Your task to perform on an android device: delete a single message in the gmail app Image 0: 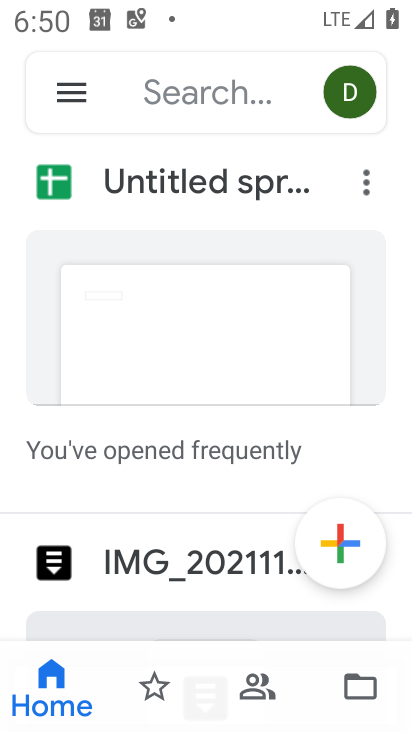
Step 0: press home button
Your task to perform on an android device: delete a single message in the gmail app Image 1: 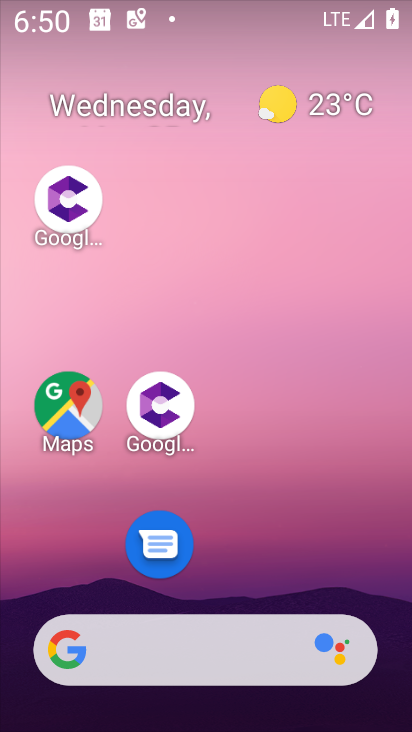
Step 1: drag from (277, 502) to (237, 134)
Your task to perform on an android device: delete a single message in the gmail app Image 2: 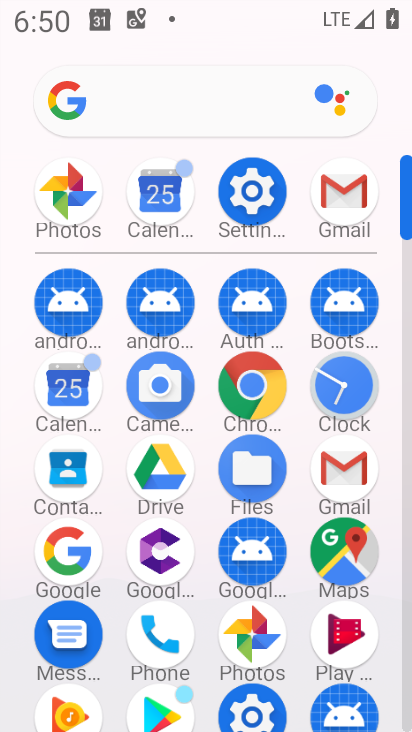
Step 2: click (346, 198)
Your task to perform on an android device: delete a single message in the gmail app Image 3: 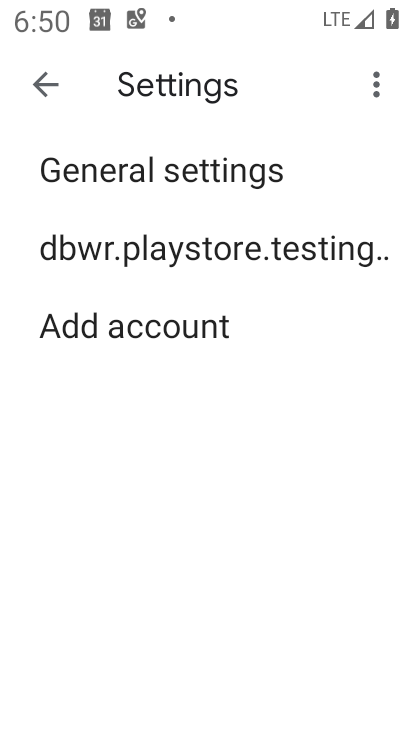
Step 3: click (36, 83)
Your task to perform on an android device: delete a single message in the gmail app Image 4: 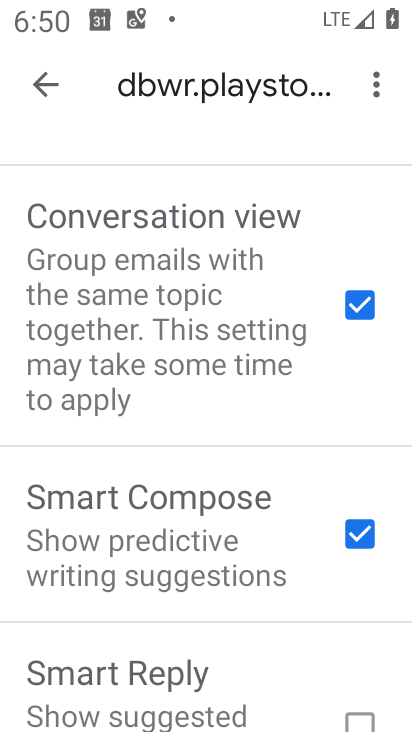
Step 4: click (49, 83)
Your task to perform on an android device: delete a single message in the gmail app Image 5: 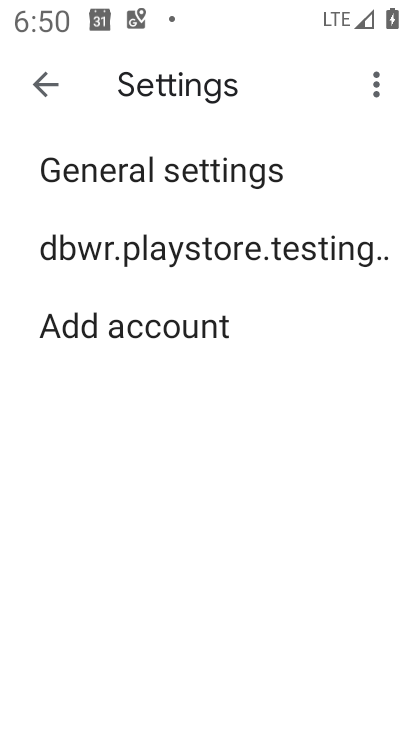
Step 5: click (46, 83)
Your task to perform on an android device: delete a single message in the gmail app Image 6: 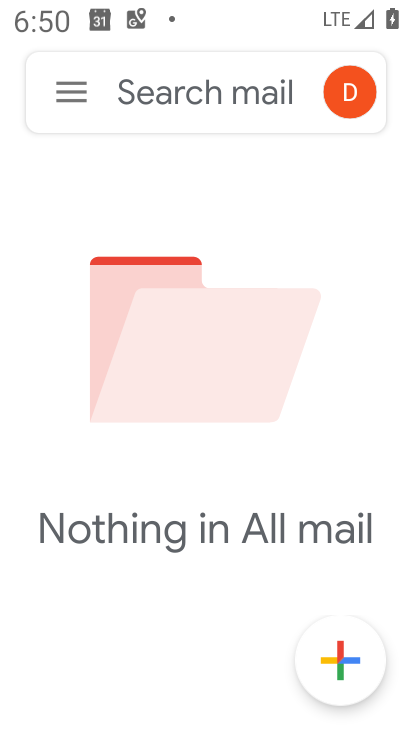
Step 6: task complete